Your task to perform on an android device: clear all cookies in the chrome app Image 0: 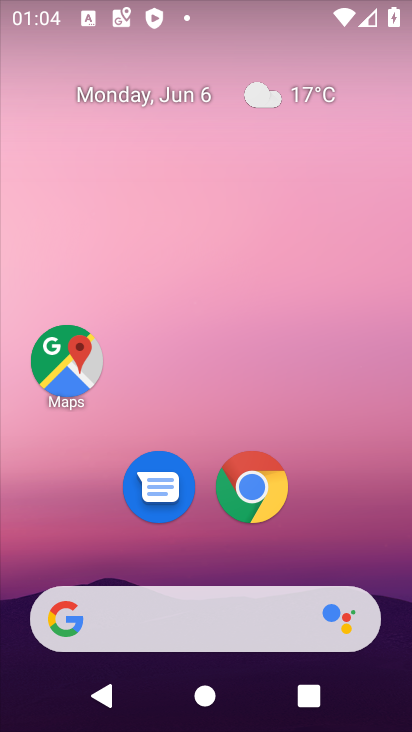
Step 0: click (253, 484)
Your task to perform on an android device: clear all cookies in the chrome app Image 1: 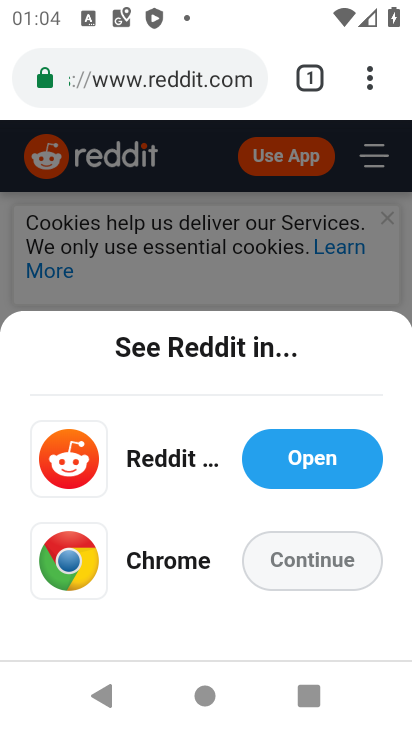
Step 1: click (368, 86)
Your task to perform on an android device: clear all cookies in the chrome app Image 2: 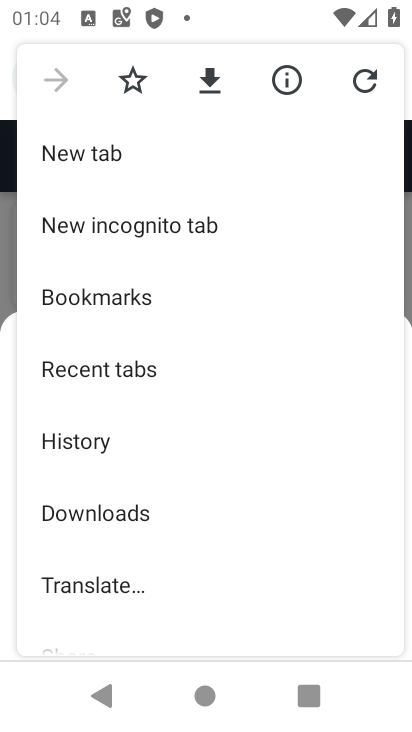
Step 2: drag from (195, 569) to (198, 355)
Your task to perform on an android device: clear all cookies in the chrome app Image 3: 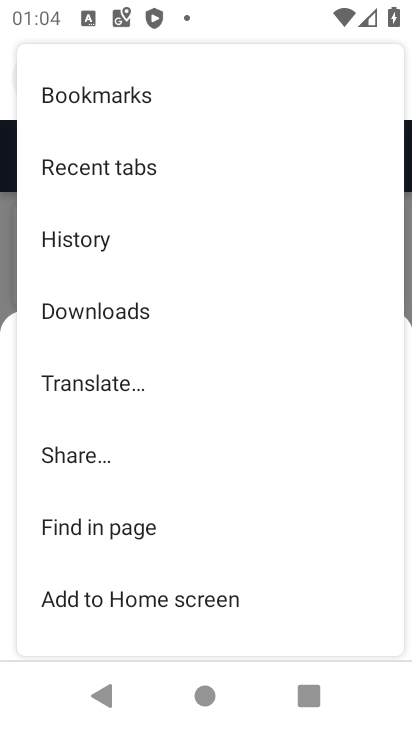
Step 3: click (71, 234)
Your task to perform on an android device: clear all cookies in the chrome app Image 4: 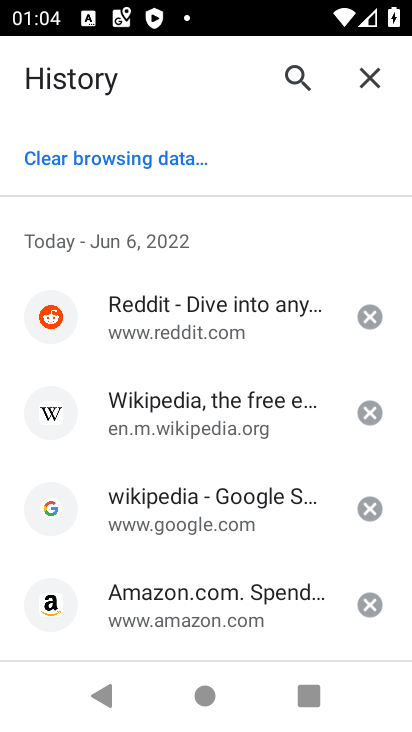
Step 4: click (107, 152)
Your task to perform on an android device: clear all cookies in the chrome app Image 5: 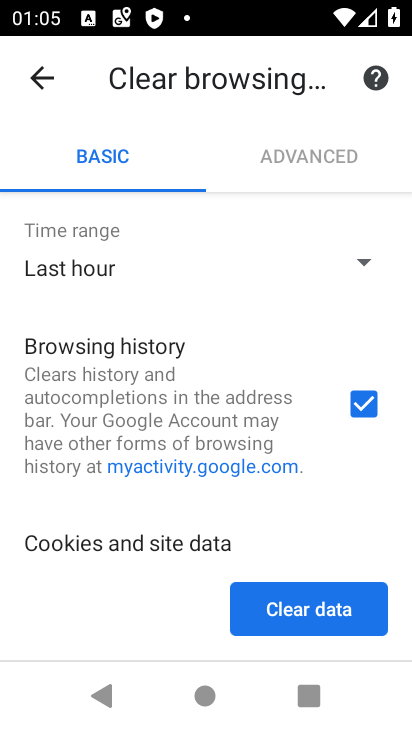
Step 5: click (358, 404)
Your task to perform on an android device: clear all cookies in the chrome app Image 6: 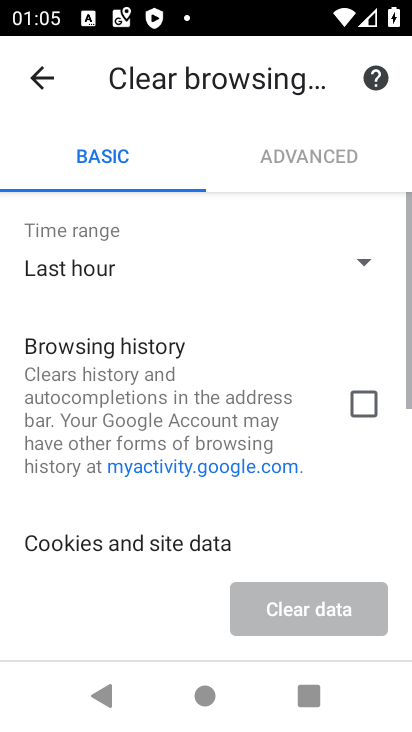
Step 6: drag from (325, 531) to (293, 156)
Your task to perform on an android device: clear all cookies in the chrome app Image 7: 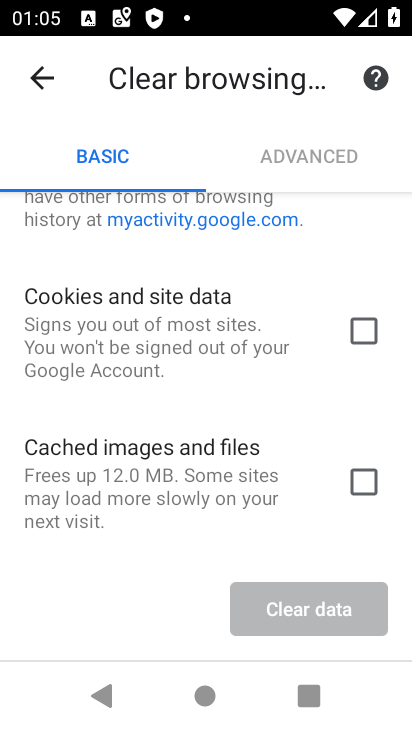
Step 7: click (360, 322)
Your task to perform on an android device: clear all cookies in the chrome app Image 8: 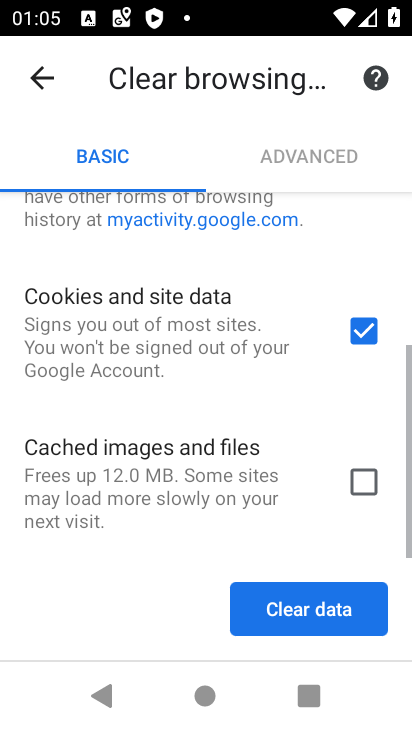
Step 8: click (311, 604)
Your task to perform on an android device: clear all cookies in the chrome app Image 9: 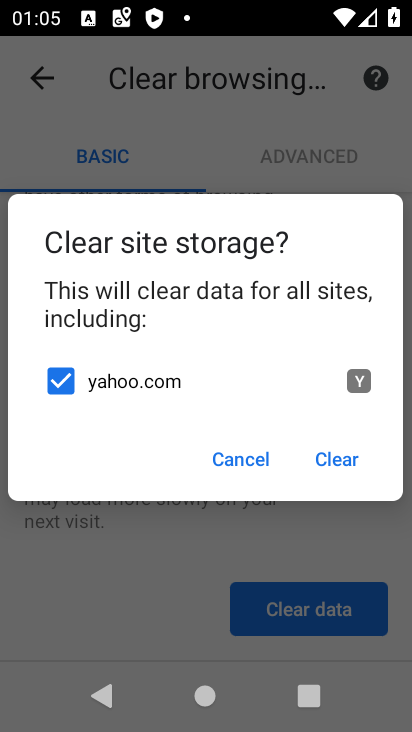
Step 9: click (337, 458)
Your task to perform on an android device: clear all cookies in the chrome app Image 10: 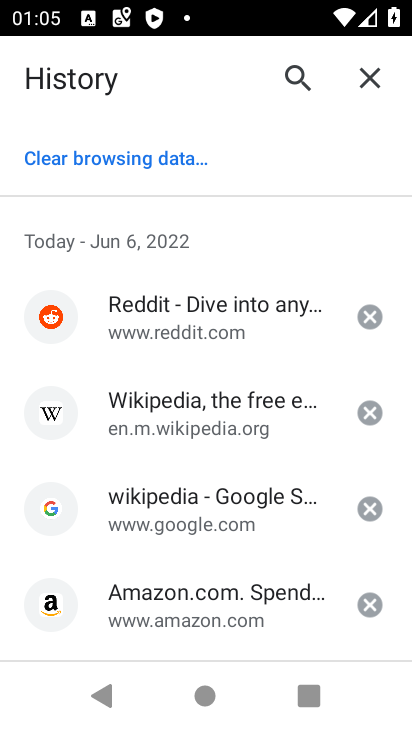
Step 10: task complete